Your task to perform on an android device: turn pop-ups off in chrome Image 0: 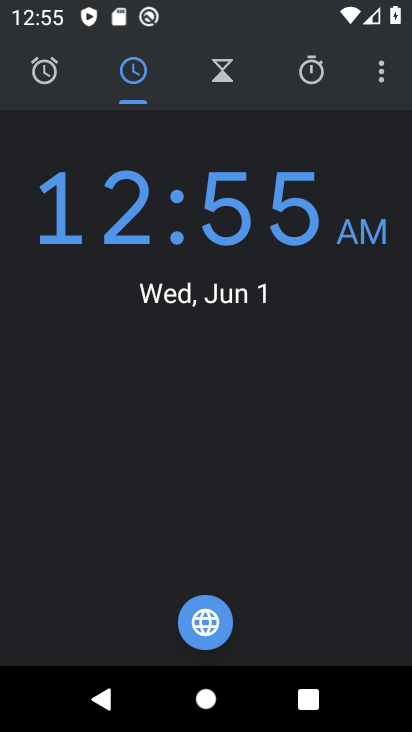
Step 0: press home button
Your task to perform on an android device: turn pop-ups off in chrome Image 1: 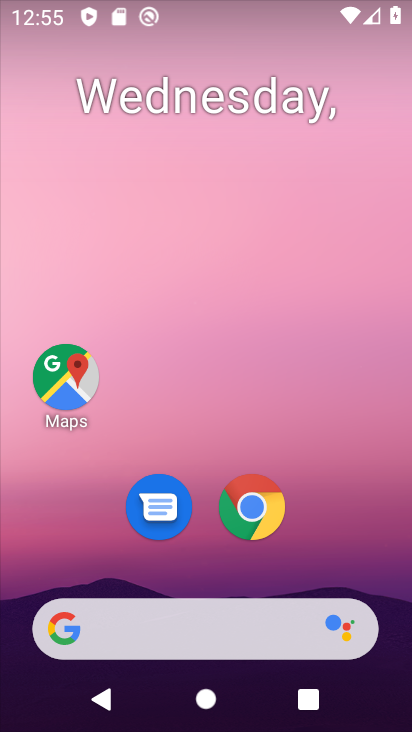
Step 1: click (253, 516)
Your task to perform on an android device: turn pop-ups off in chrome Image 2: 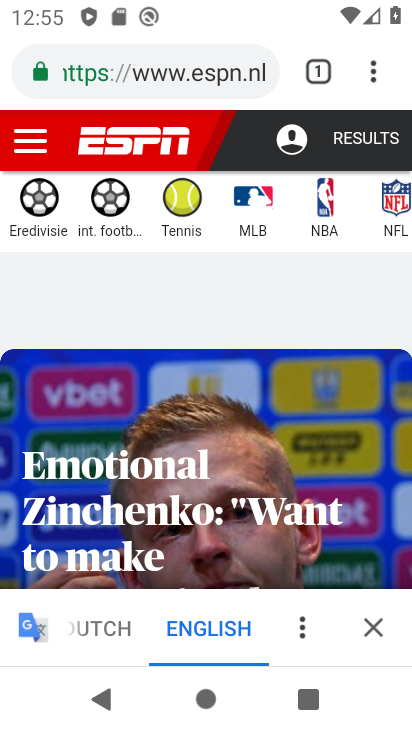
Step 2: drag from (374, 67) to (216, 502)
Your task to perform on an android device: turn pop-ups off in chrome Image 3: 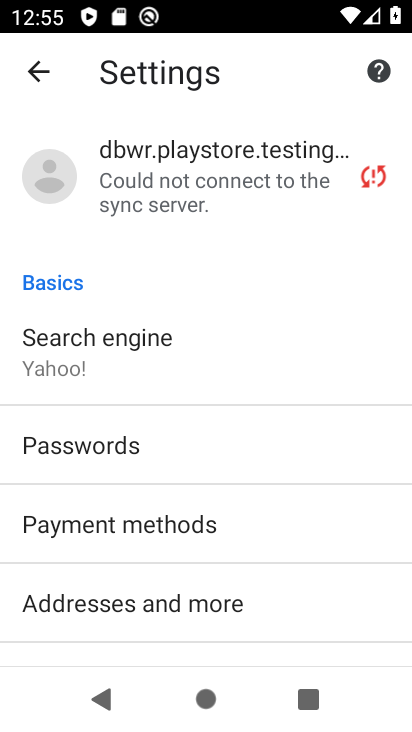
Step 3: drag from (233, 627) to (279, 210)
Your task to perform on an android device: turn pop-ups off in chrome Image 4: 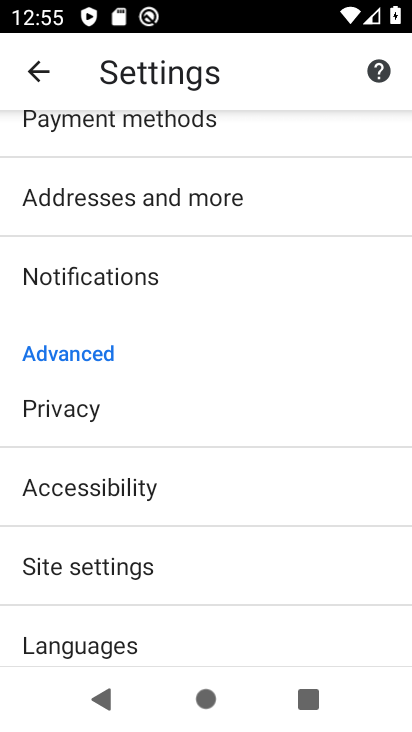
Step 4: click (123, 565)
Your task to perform on an android device: turn pop-ups off in chrome Image 5: 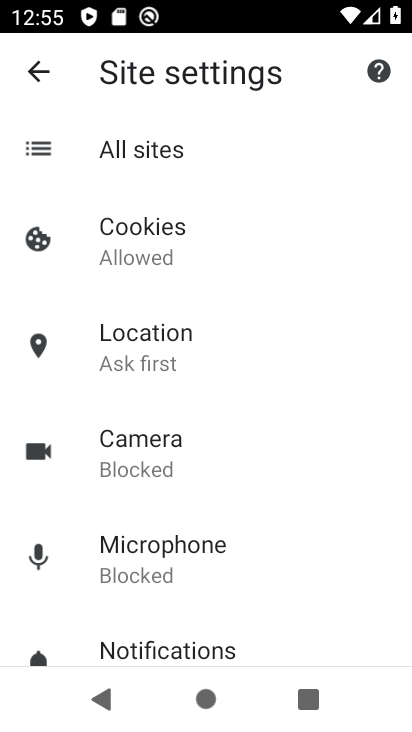
Step 5: drag from (230, 583) to (309, 218)
Your task to perform on an android device: turn pop-ups off in chrome Image 6: 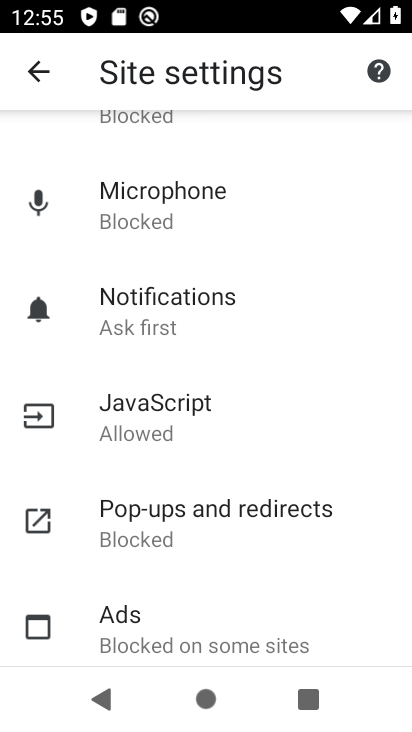
Step 6: click (198, 514)
Your task to perform on an android device: turn pop-ups off in chrome Image 7: 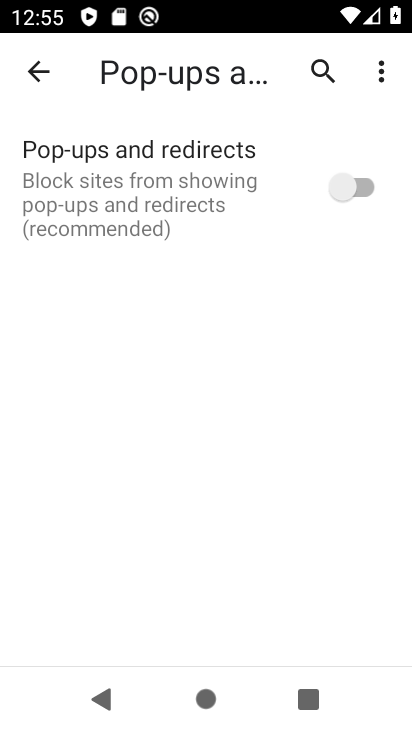
Step 7: task complete